Your task to perform on an android device: clear all cookies in the chrome app Image 0: 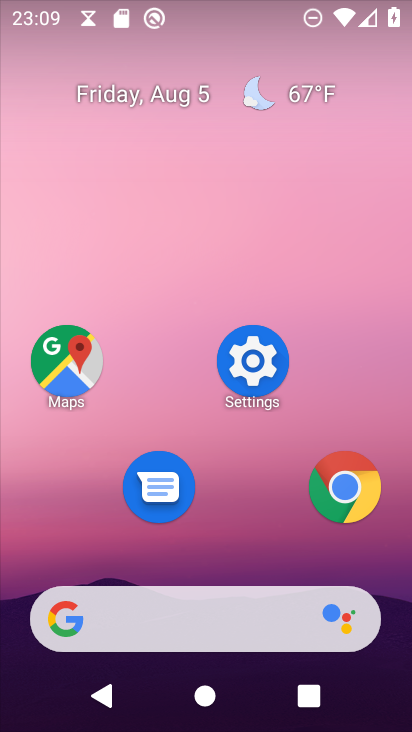
Step 0: click (354, 475)
Your task to perform on an android device: clear all cookies in the chrome app Image 1: 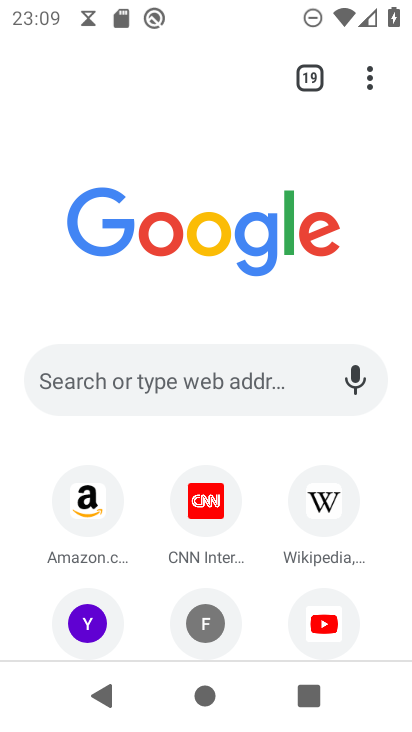
Step 1: drag from (370, 80) to (149, 538)
Your task to perform on an android device: clear all cookies in the chrome app Image 2: 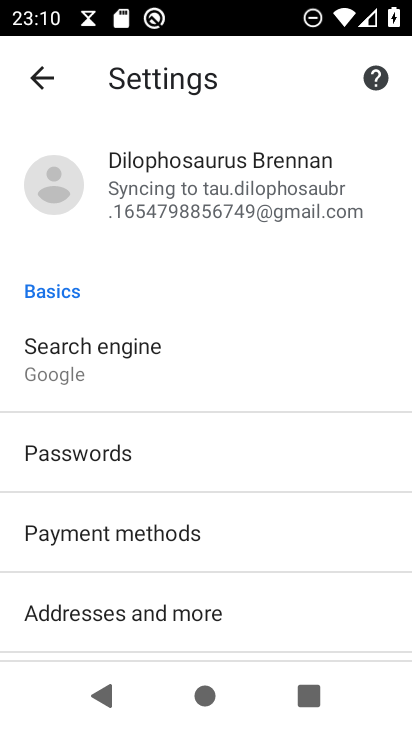
Step 2: drag from (261, 574) to (329, 45)
Your task to perform on an android device: clear all cookies in the chrome app Image 3: 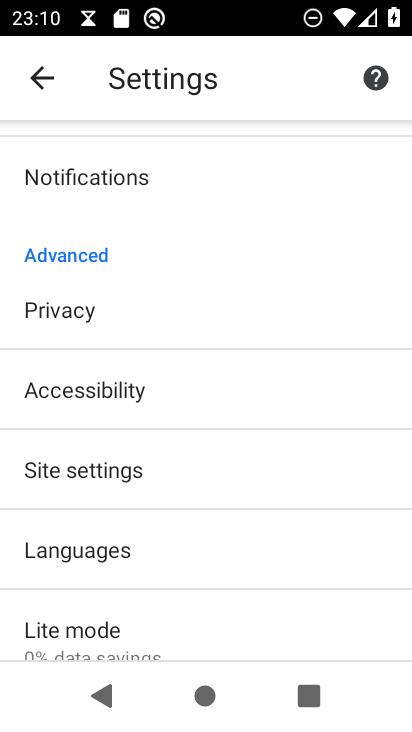
Step 3: click (76, 304)
Your task to perform on an android device: clear all cookies in the chrome app Image 4: 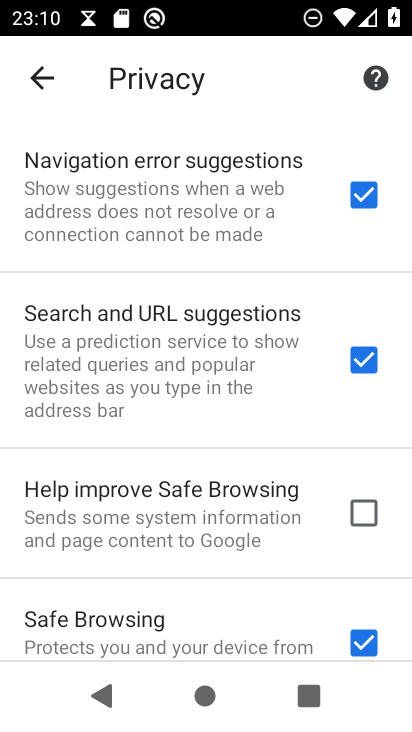
Step 4: drag from (239, 635) to (336, 32)
Your task to perform on an android device: clear all cookies in the chrome app Image 5: 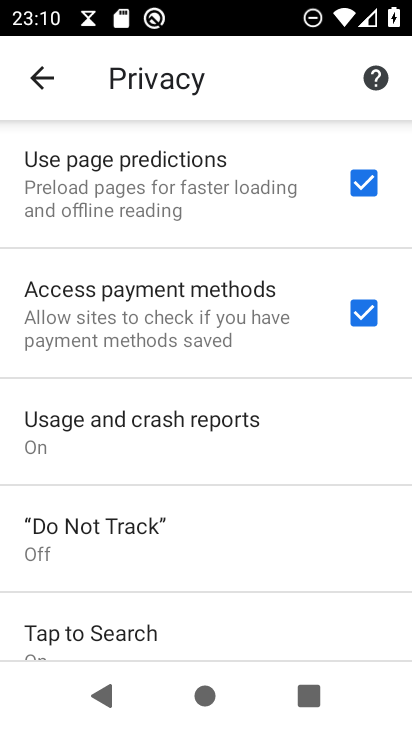
Step 5: drag from (200, 582) to (351, 126)
Your task to perform on an android device: clear all cookies in the chrome app Image 6: 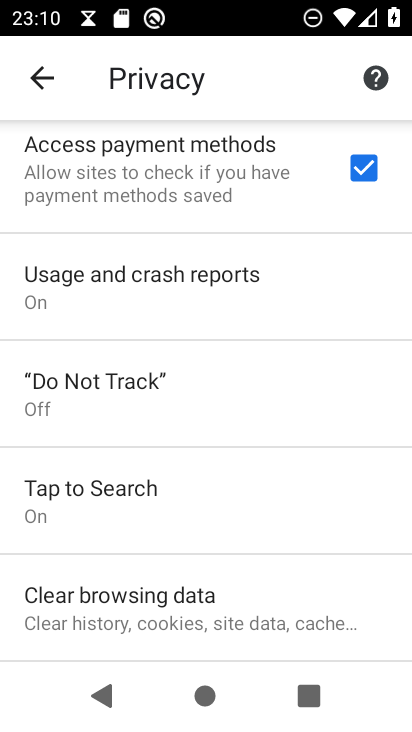
Step 6: click (175, 595)
Your task to perform on an android device: clear all cookies in the chrome app Image 7: 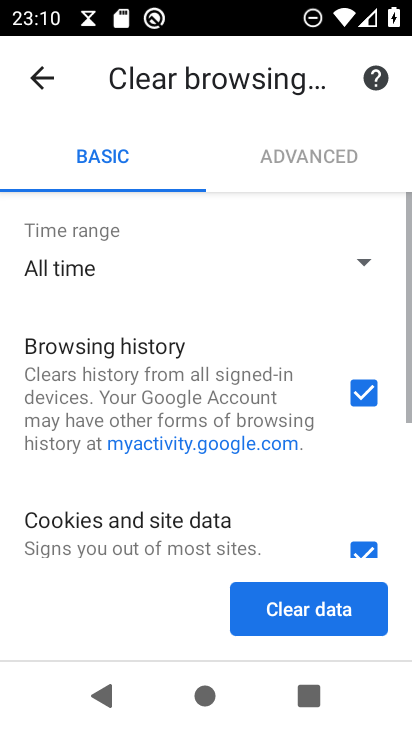
Step 7: click (367, 385)
Your task to perform on an android device: clear all cookies in the chrome app Image 8: 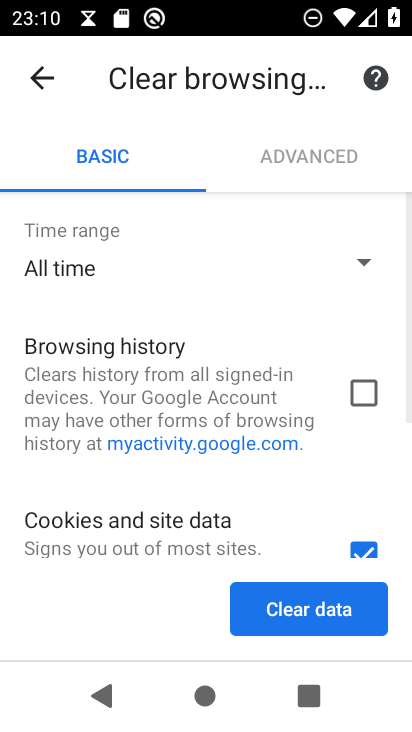
Step 8: drag from (244, 530) to (336, 166)
Your task to perform on an android device: clear all cookies in the chrome app Image 9: 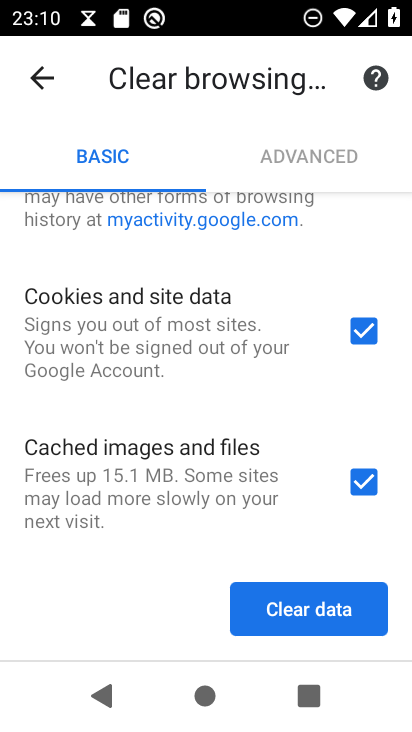
Step 9: click (361, 468)
Your task to perform on an android device: clear all cookies in the chrome app Image 10: 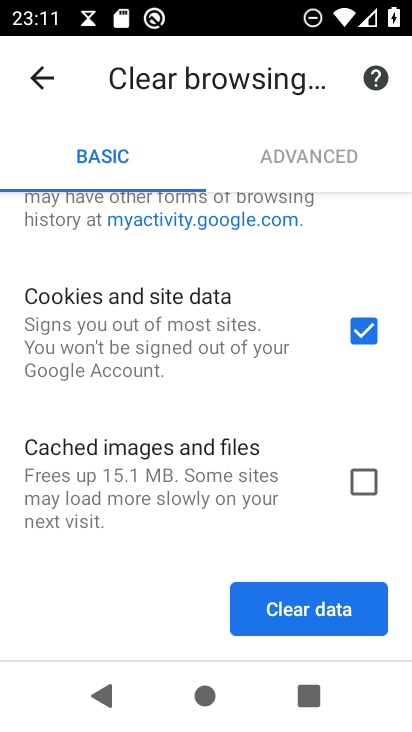
Step 10: click (338, 617)
Your task to perform on an android device: clear all cookies in the chrome app Image 11: 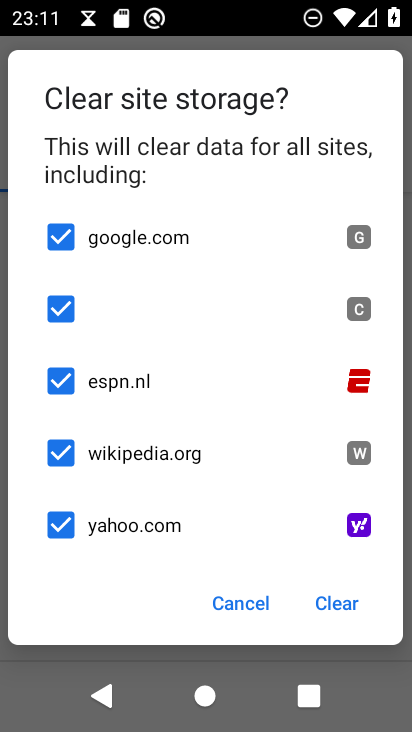
Step 11: click (334, 599)
Your task to perform on an android device: clear all cookies in the chrome app Image 12: 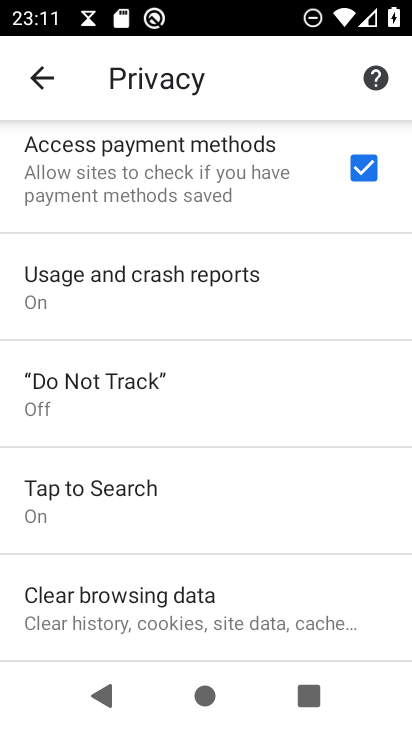
Step 12: task complete